Your task to perform on an android device: Open Google Chrome and open the bookmarks view Image 0: 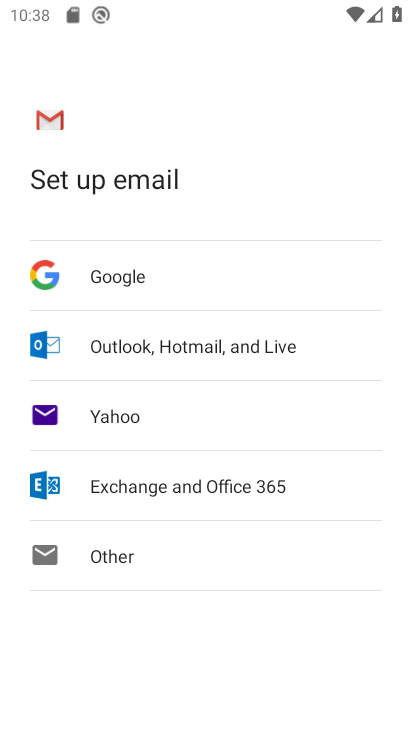
Step 0: press home button
Your task to perform on an android device: Open Google Chrome and open the bookmarks view Image 1: 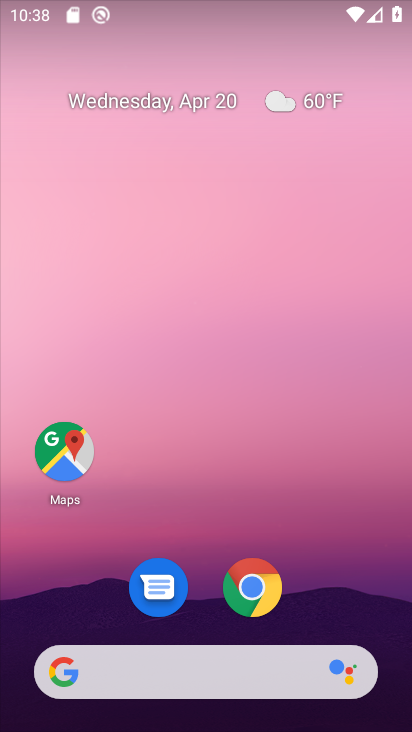
Step 1: click (250, 578)
Your task to perform on an android device: Open Google Chrome and open the bookmarks view Image 2: 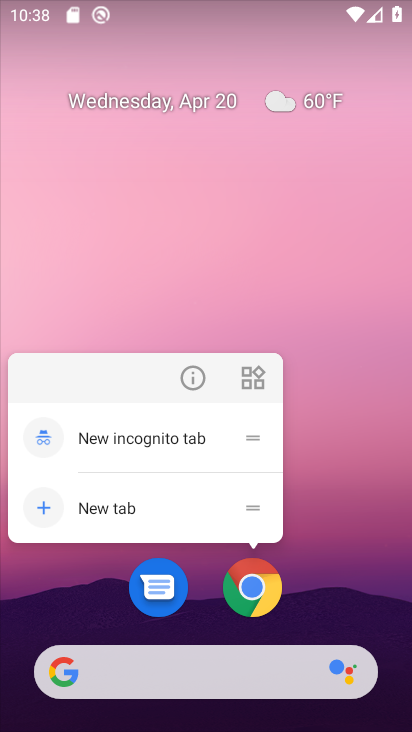
Step 2: click (250, 578)
Your task to perform on an android device: Open Google Chrome and open the bookmarks view Image 3: 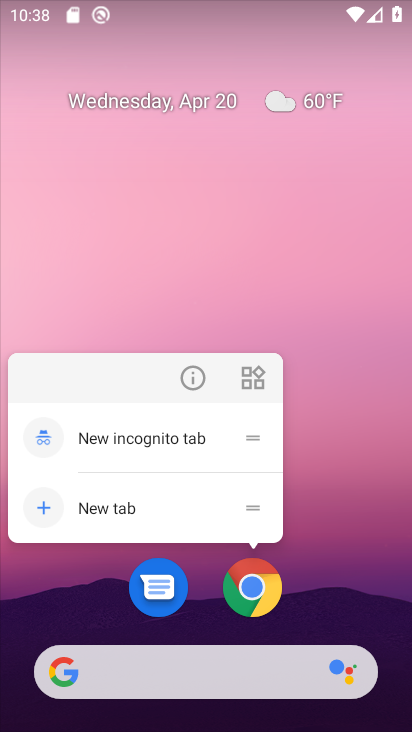
Step 3: click (316, 526)
Your task to perform on an android device: Open Google Chrome and open the bookmarks view Image 4: 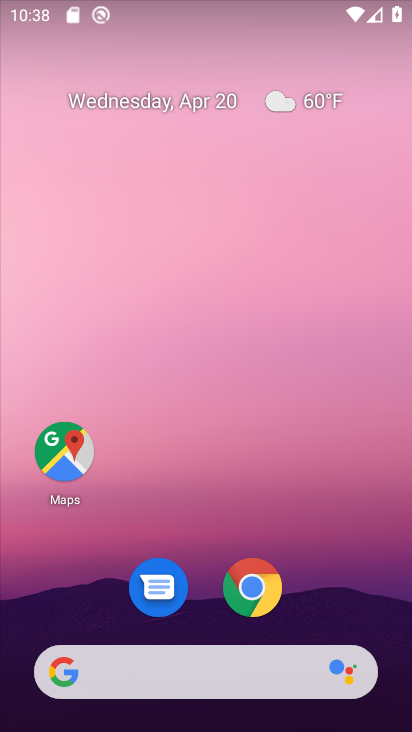
Step 4: click (252, 583)
Your task to perform on an android device: Open Google Chrome and open the bookmarks view Image 5: 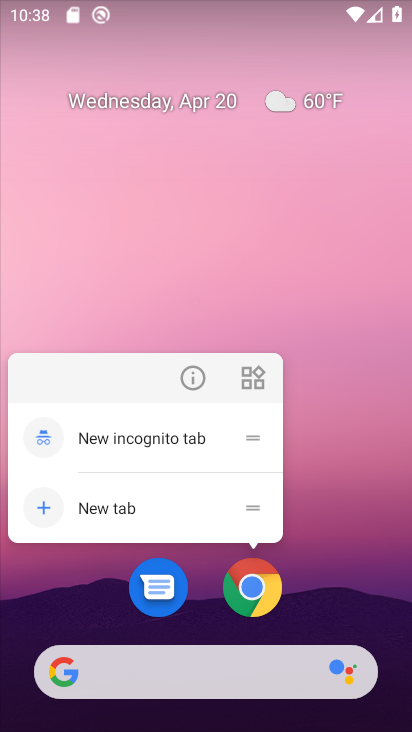
Step 5: click (338, 547)
Your task to perform on an android device: Open Google Chrome and open the bookmarks view Image 6: 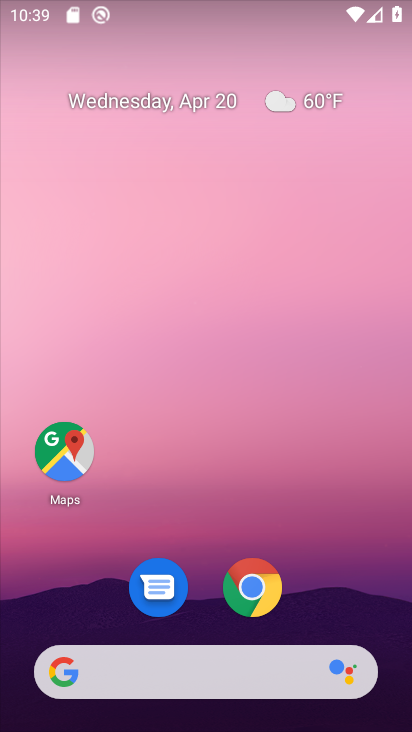
Step 6: click (249, 579)
Your task to perform on an android device: Open Google Chrome and open the bookmarks view Image 7: 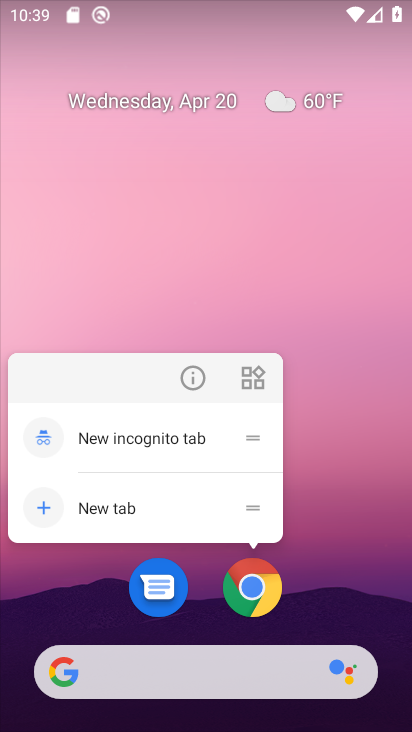
Step 7: click (318, 528)
Your task to perform on an android device: Open Google Chrome and open the bookmarks view Image 8: 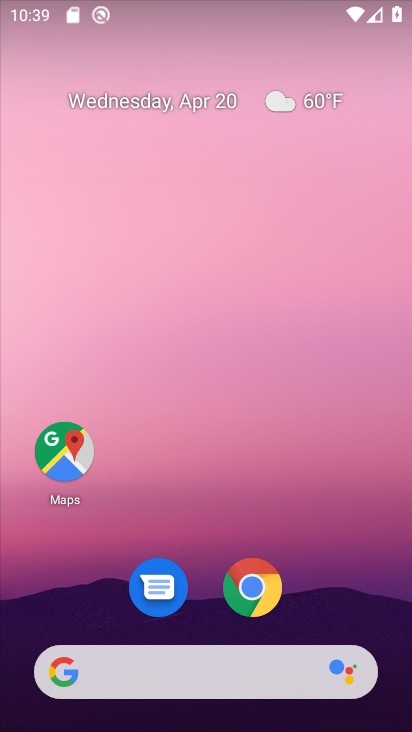
Step 8: click (312, 406)
Your task to perform on an android device: Open Google Chrome and open the bookmarks view Image 9: 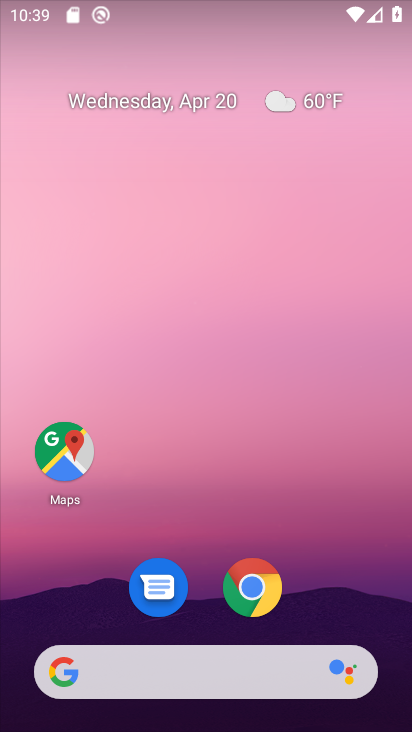
Step 9: click (384, 381)
Your task to perform on an android device: Open Google Chrome and open the bookmarks view Image 10: 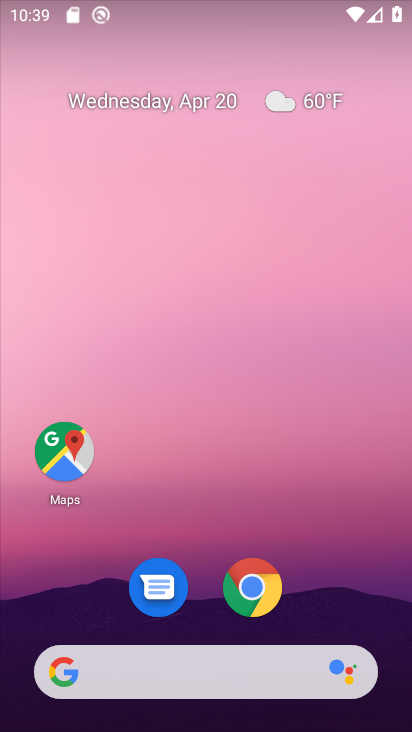
Step 10: click (249, 580)
Your task to perform on an android device: Open Google Chrome and open the bookmarks view Image 11: 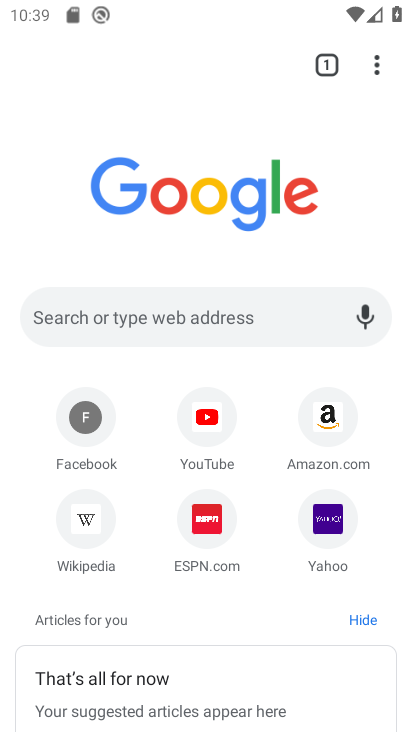
Step 11: click (374, 61)
Your task to perform on an android device: Open Google Chrome and open the bookmarks view Image 12: 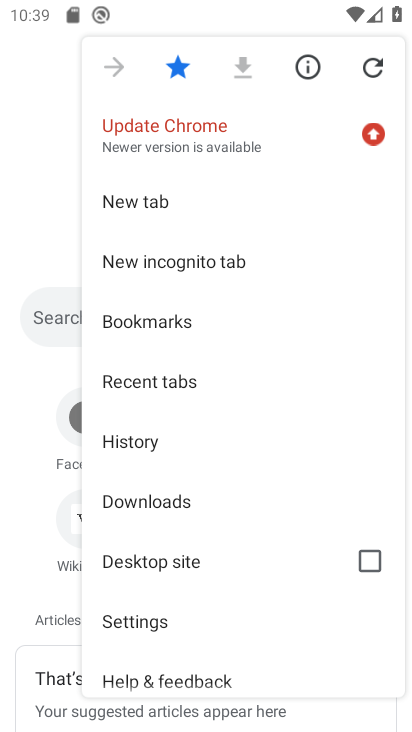
Step 12: click (195, 317)
Your task to perform on an android device: Open Google Chrome and open the bookmarks view Image 13: 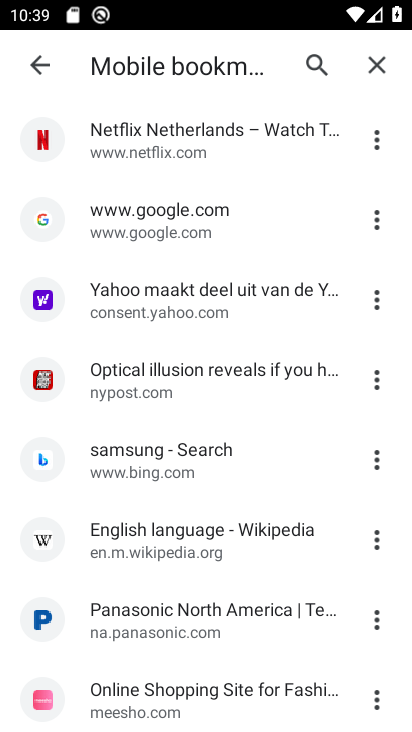
Step 13: click (242, 542)
Your task to perform on an android device: Open Google Chrome and open the bookmarks view Image 14: 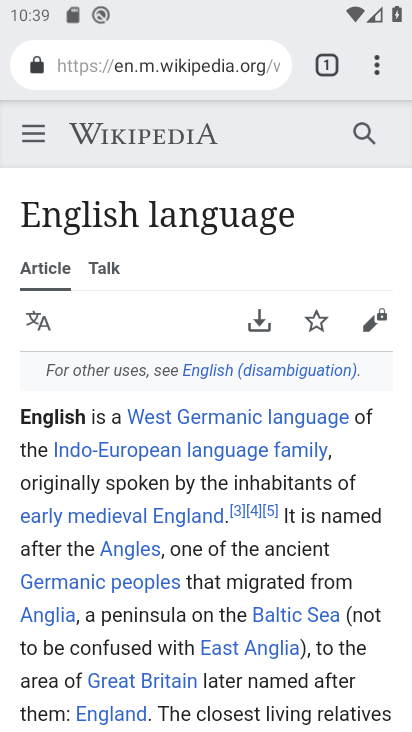
Step 14: task complete